Your task to perform on an android device: Open my contact list Image 0: 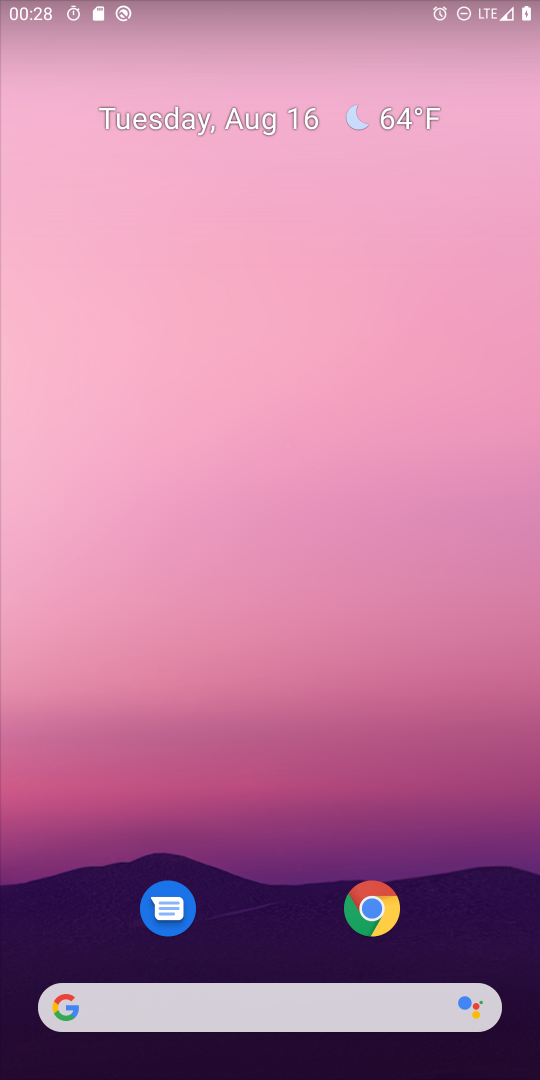
Step 0: click (346, 123)
Your task to perform on an android device: Open my contact list Image 1: 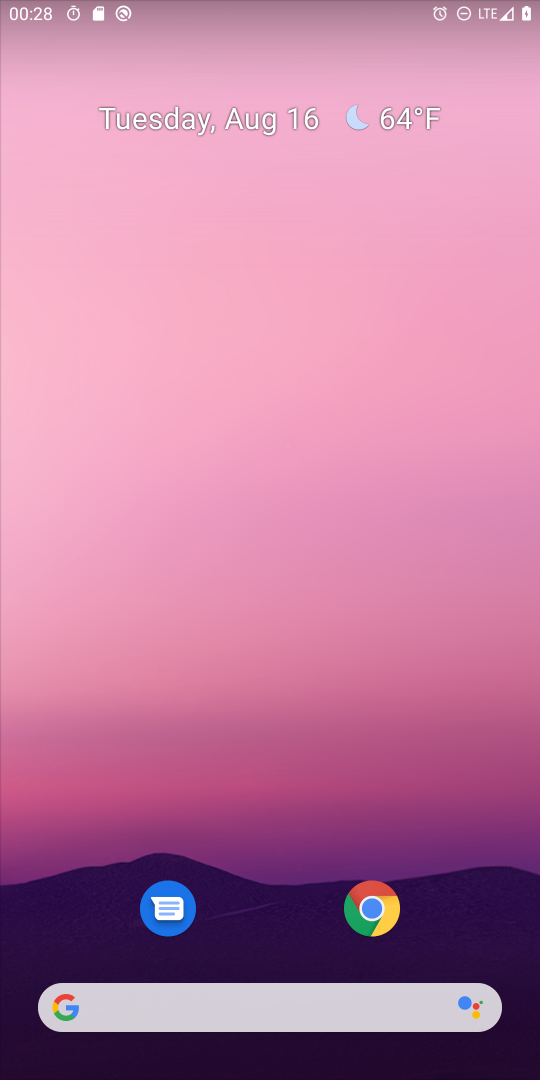
Step 1: drag from (262, 917) to (289, 246)
Your task to perform on an android device: Open my contact list Image 2: 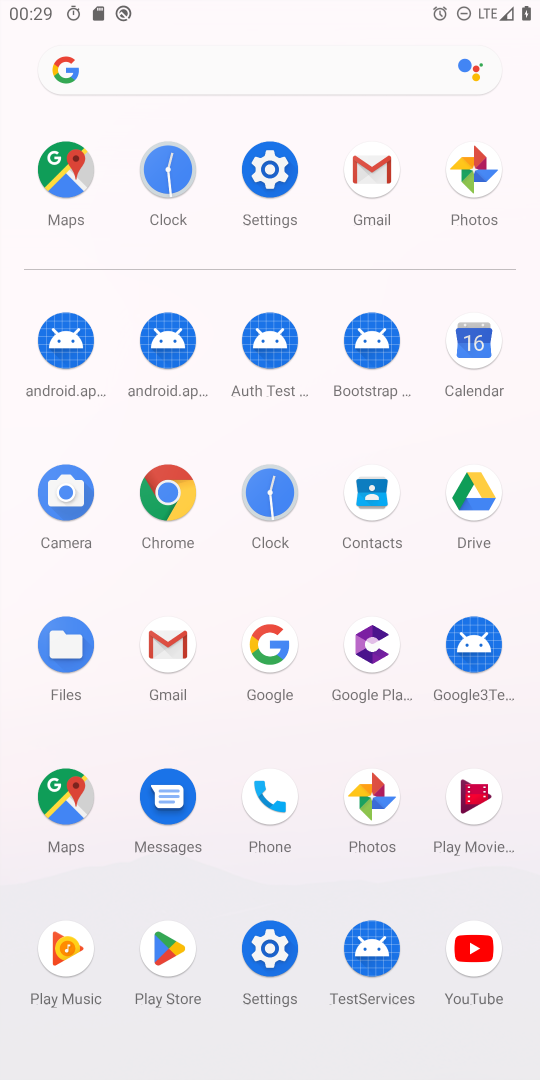
Step 2: click (255, 814)
Your task to perform on an android device: Open my contact list Image 3: 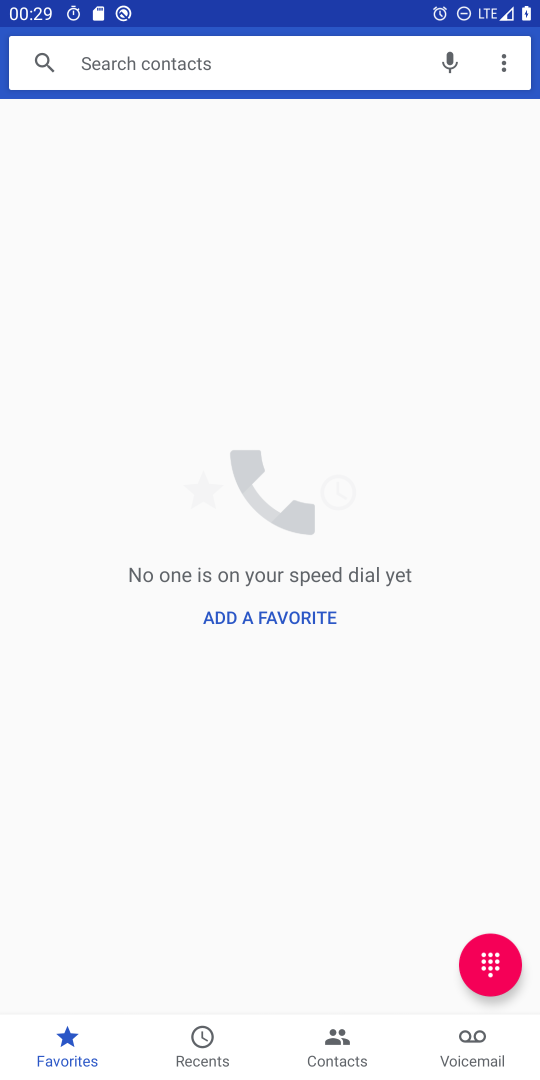
Step 3: click (350, 1039)
Your task to perform on an android device: Open my contact list Image 4: 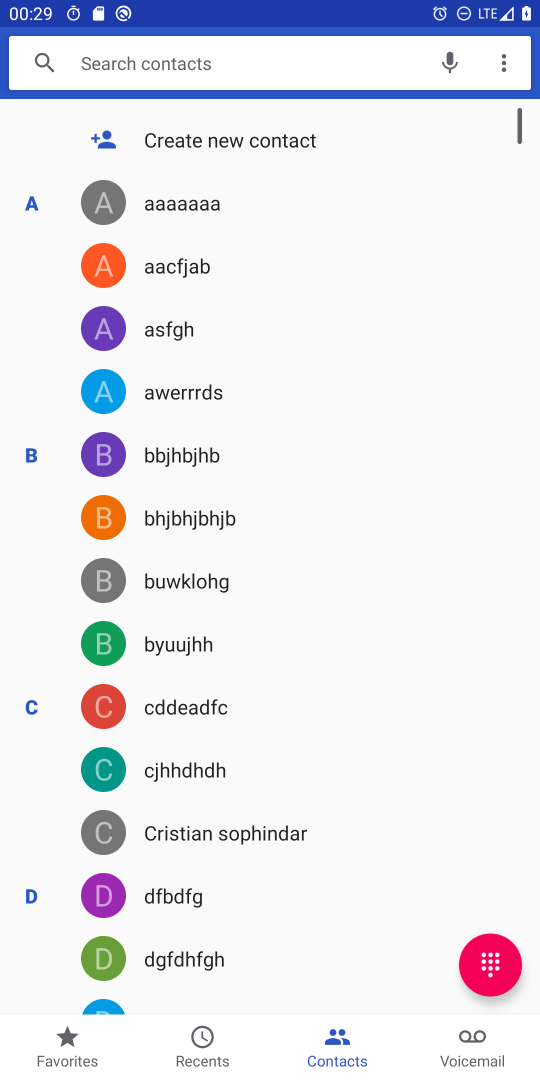
Step 4: task complete